Your task to perform on an android device: Open network settings Image 0: 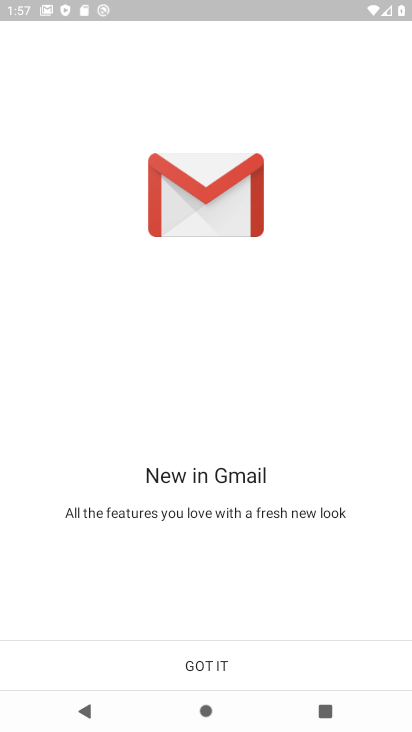
Step 0: press home button
Your task to perform on an android device: Open network settings Image 1: 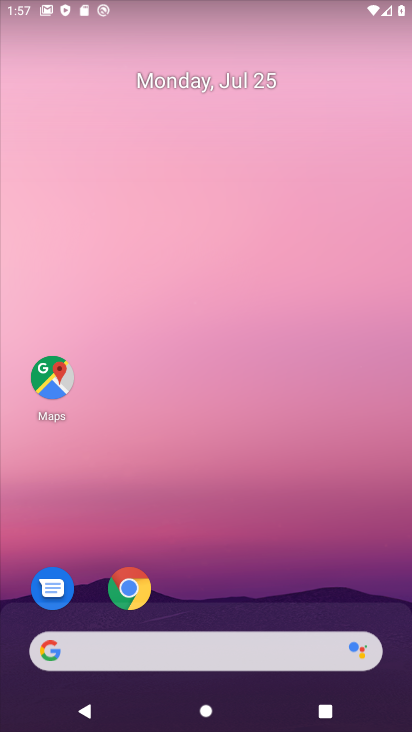
Step 1: drag from (200, 332) to (200, 206)
Your task to perform on an android device: Open network settings Image 2: 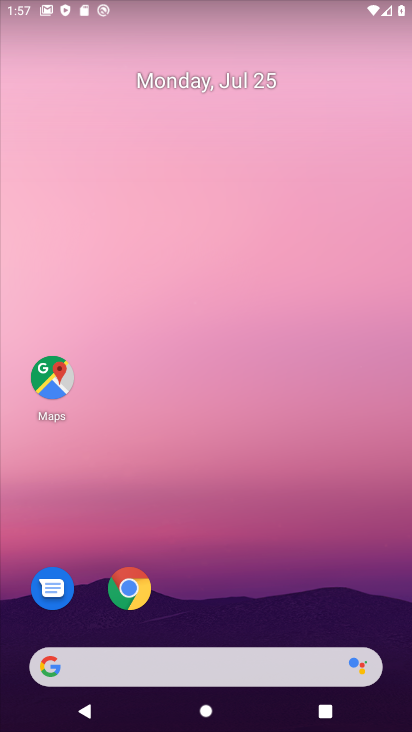
Step 2: click (222, 113)
Your task to perform on an android device: Open network settings Image 3: 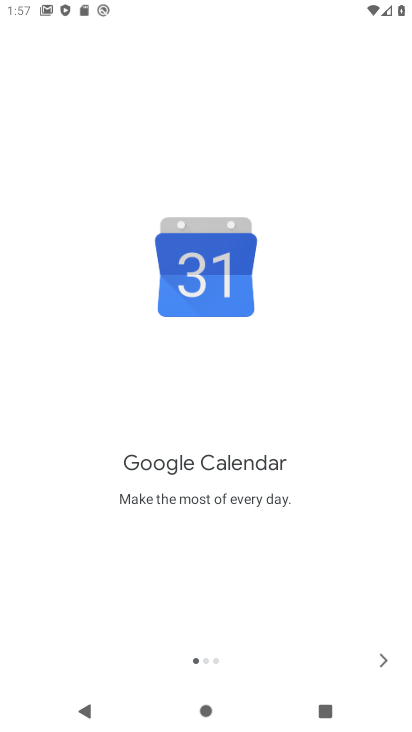
Step 3: press home button
Your task to perform on an android device: Open network settings Image 4: 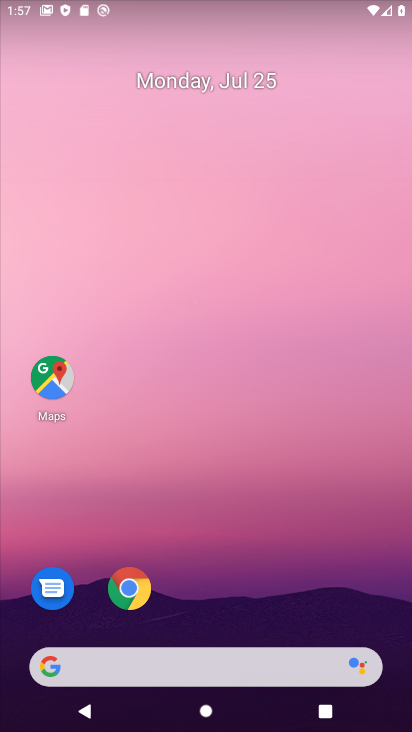
Step 4: drag from (199, 579) to (169, 126)
Your task to perform on an android device: Open network settings Image 5: 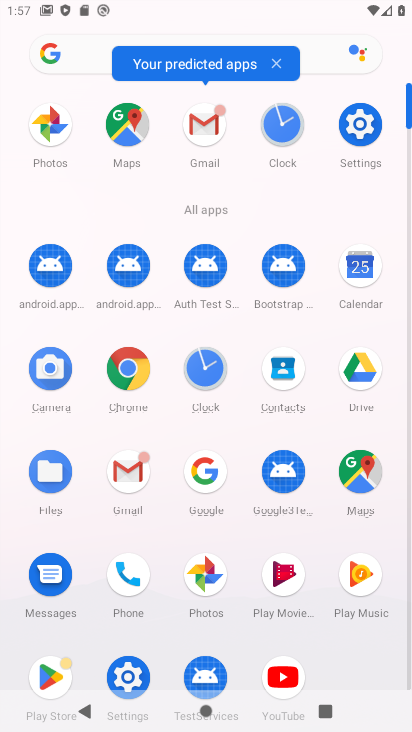
Step 5: click (365, 150)
Your task to perform on an android device: Open network settings Image 6: 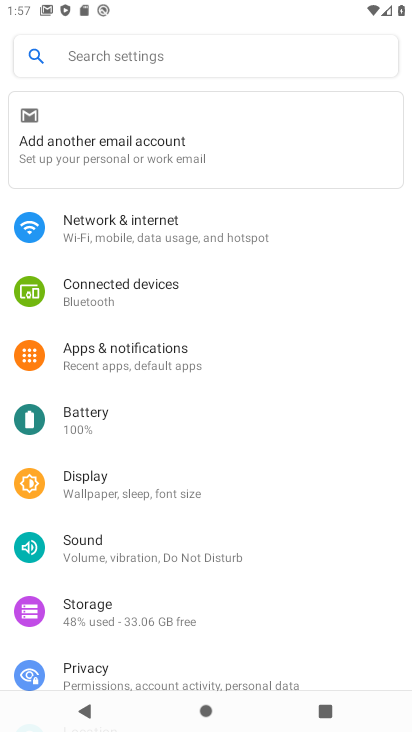
Step 6: click (171, 229)
Your task to perform on an android device: Open network settings Image 7: 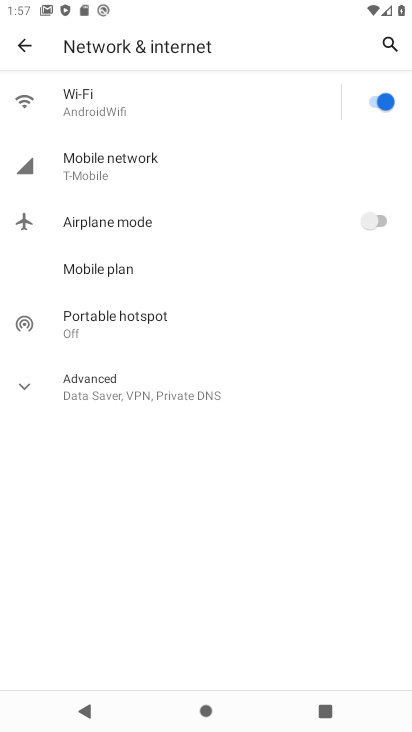
Step 7: task complete